Your task to perform on an android device: Go to Yahoo.com Image 0: 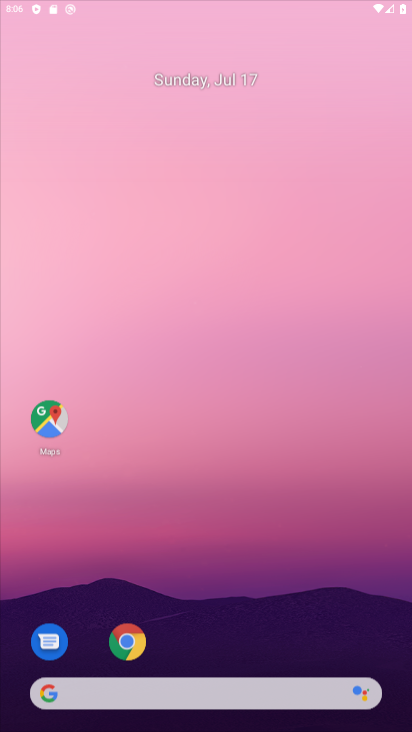
Step 0: press back button
Your task to perform on an android device: Go to Yahoo.com Image 1: 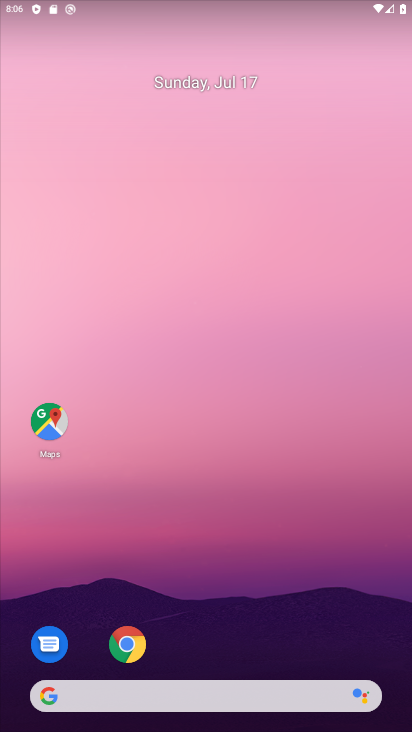
Step 1: drag from (227, 554) to (195, 60)
Your task to perform on an android device: Go to Yahoo.com Image 2: 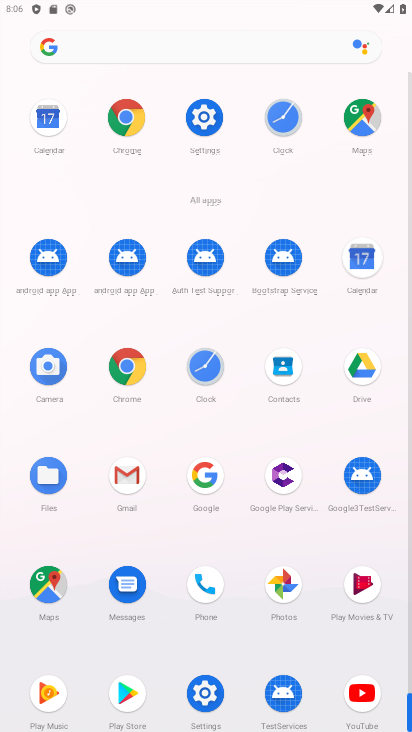
Step 2: click (362, 117)
Your task to perform on an android device: Go to Yahoo.com Image 3: 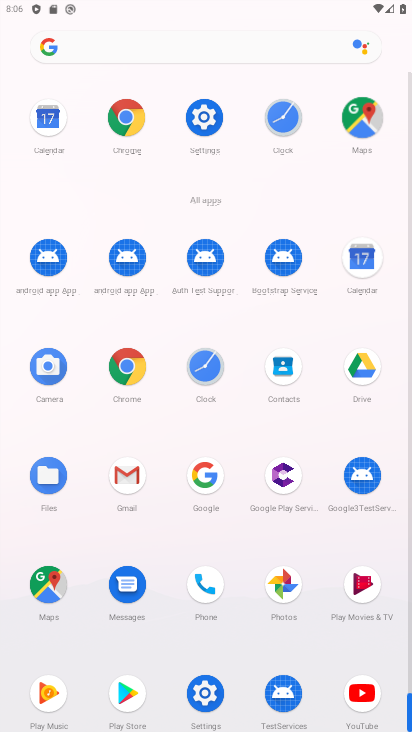
Step 3: click (363, 118)
Your task to perform on an android device: Go to Yahoo.com Image 4: 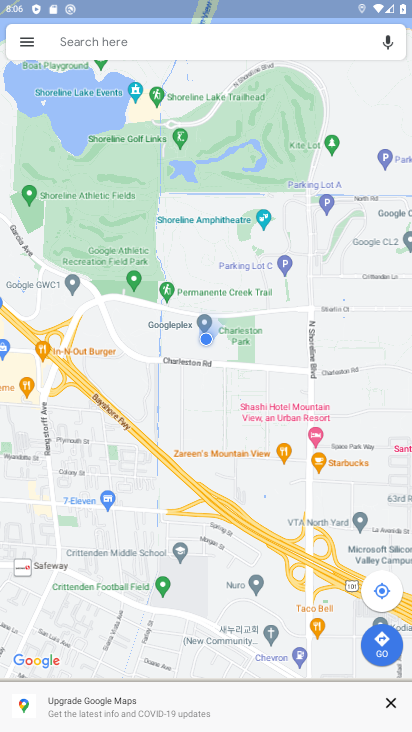
Step 4: press home button
Your task to perform on an android device: Go to Yahoo.com Image 5: 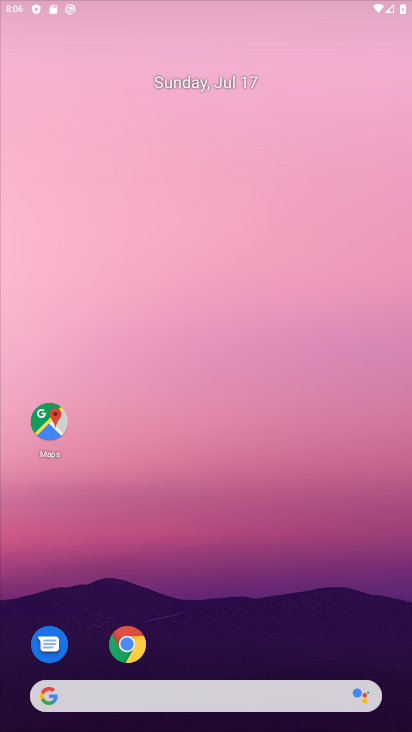
Step 5: press back button
Your task to perform on an android device: Go to Yahoo.com Image 6: 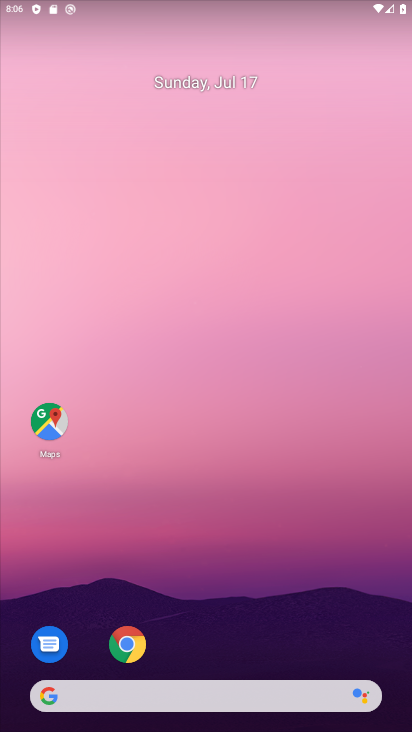
Step 6: drag from (260, 266) to (253, 216)
Your task to perform on an android device: Go to Yahoo.com Image 7: 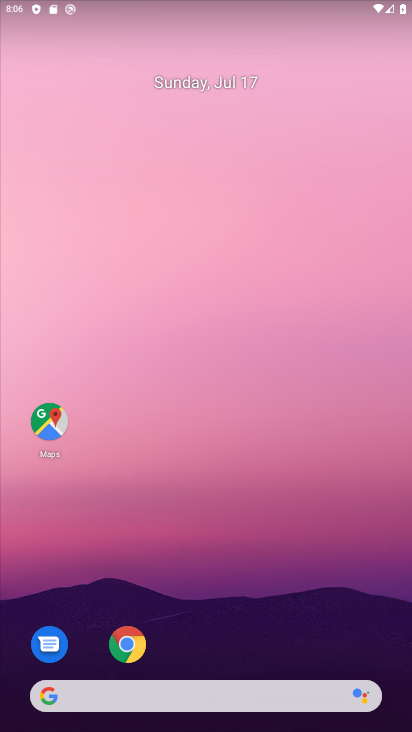
Step 7: drag from (166, 603) to (170, 53)
Your task to perform on an android device: Go to Yahoo.com Image 8: 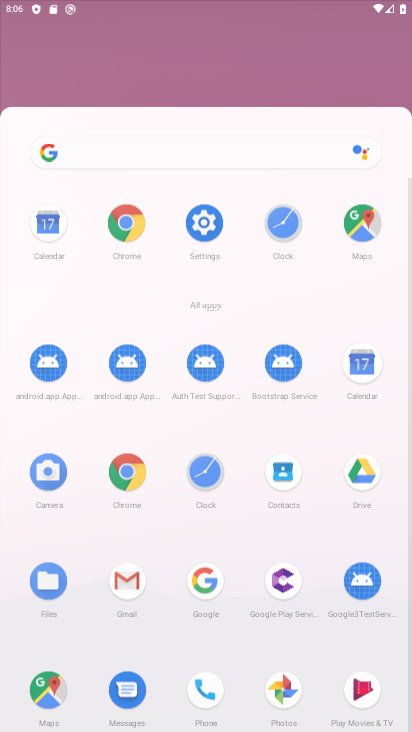
Step 8: drag from (214, 618) to (219, 69)
Your task to perform on an android device: Go to Yahoo.com Image 9: 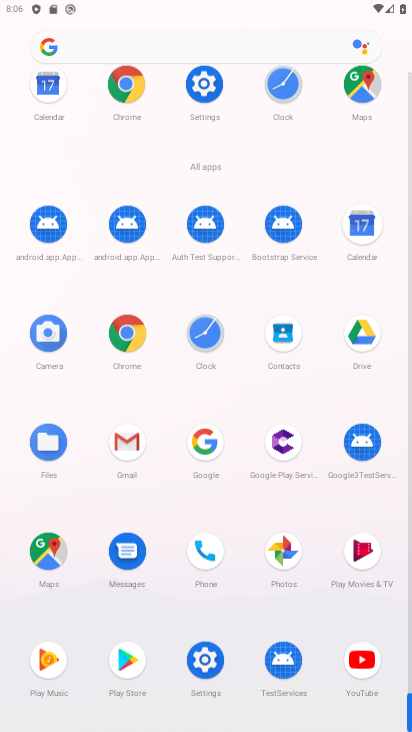
Step 9: drag from (171, 415) to (151, 15)
Your task to perform on an android device: Go to Yahoo.com Image 10: 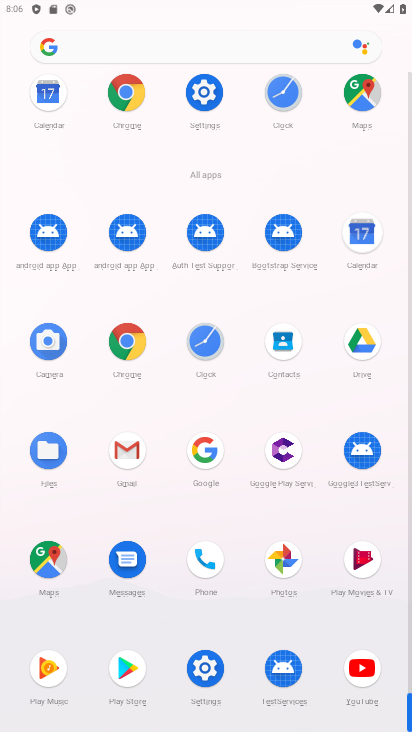
Step 10: click (129, 341)
Your task to perform on an android device: Go to Yahoo.com Image 11: 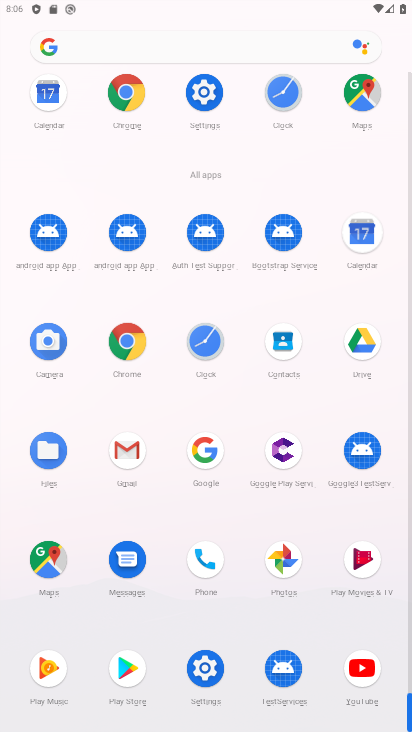
Step 11: click (131, 390)
Your task to perform on an android device: Go to Yahoo.com Image 12: 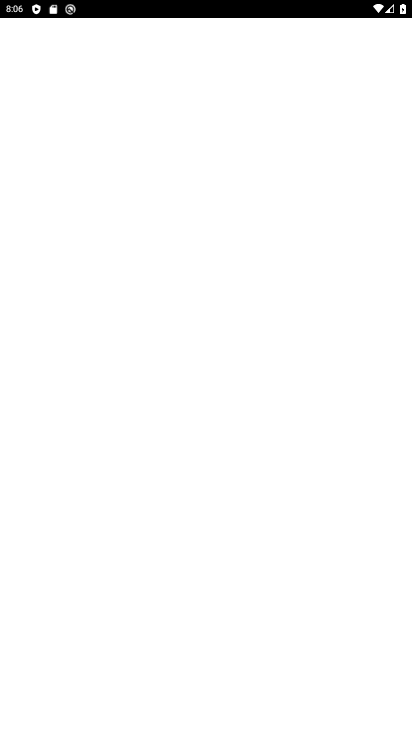
Step 12: click (118, 351)
Your task to perform on an android device: Go to Yahoo.com Image 13: 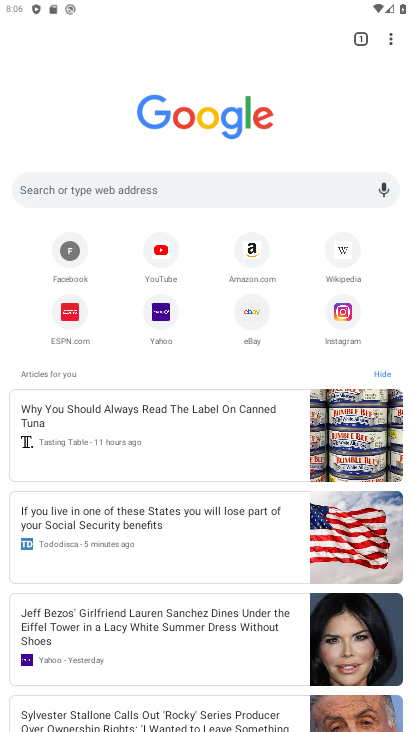
Step 13: click (167, 312)
Your task to perform on an android device: Go to Yahoo.com Image 14: 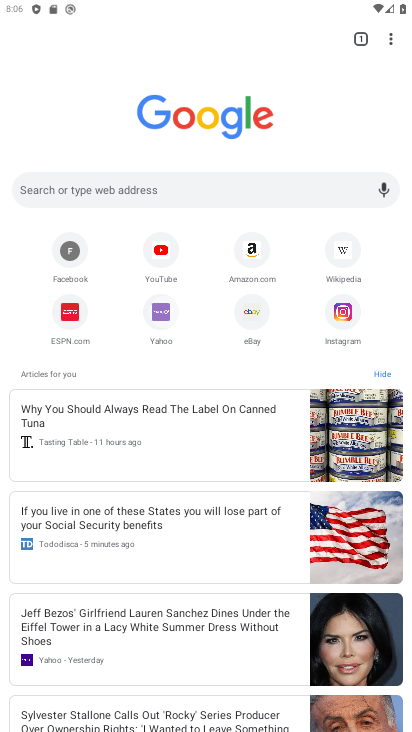
Step 14: click (167, 311)
Your task to perform on an android device: Go to Yahoo.com Image 15: 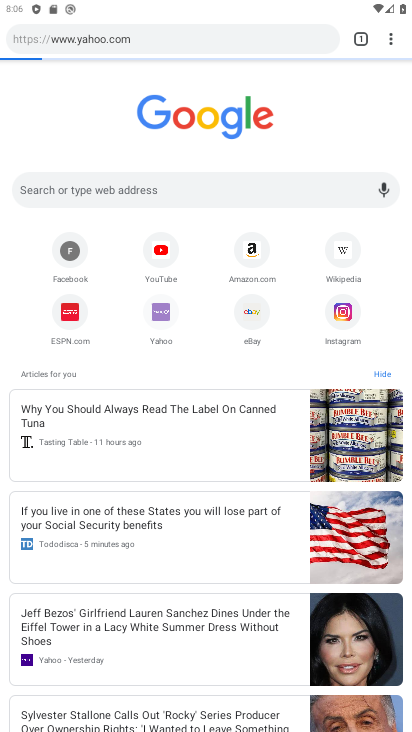
Step 15: click (169, 315)
Your task to perform on an android device: Go to Yahoo.com Image 16: 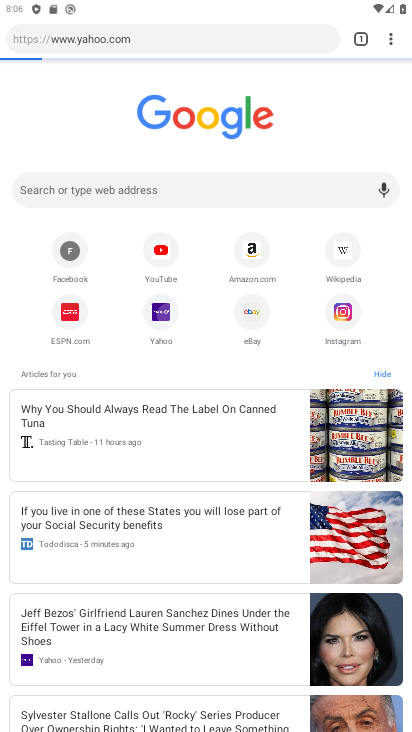
Step 16: click (174, 316)
Your task to perform on an android device: Go to Yahoo.com Image 17: 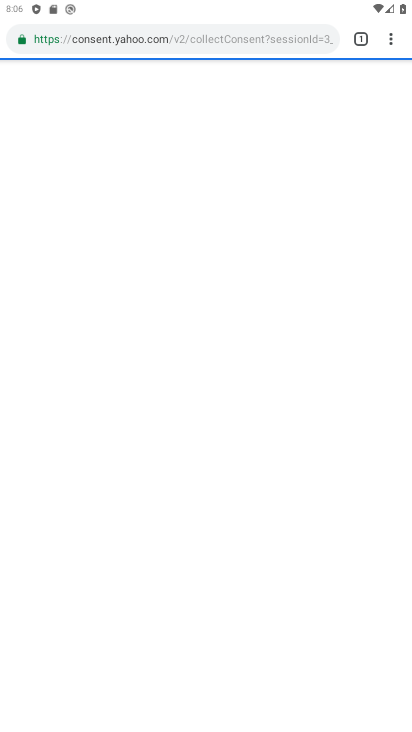
Step 17: task complete